Your task to perform on an android device: Open Wikipedia Image 0: 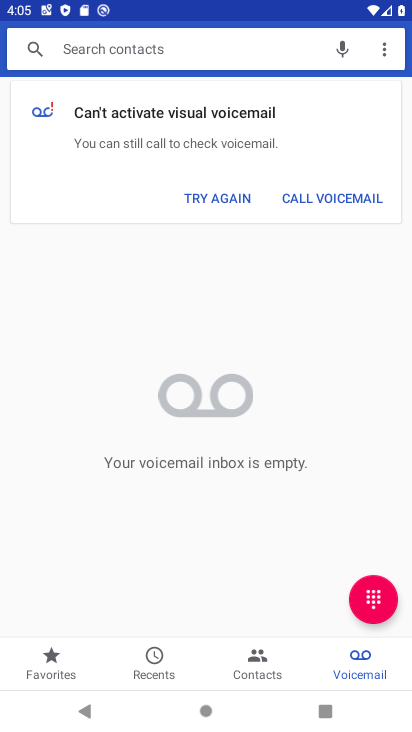
Step 0: click (206, 203)
Your task to perform on an android device: Open Wikipedia Image 1: 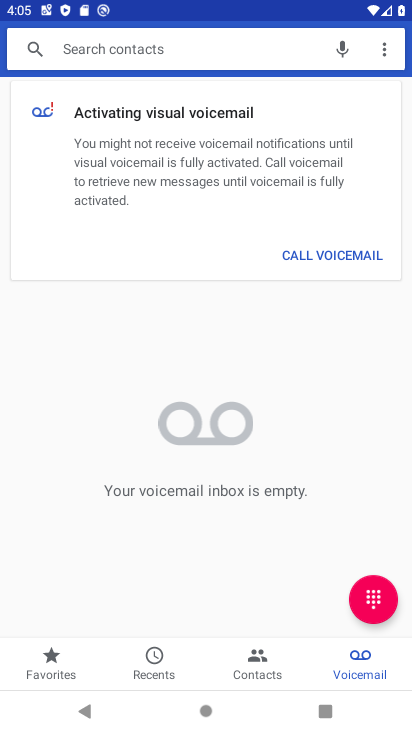
Step 1: click (212, 198)
Your task to perform on an android device: Open Wikipedia Image 2: 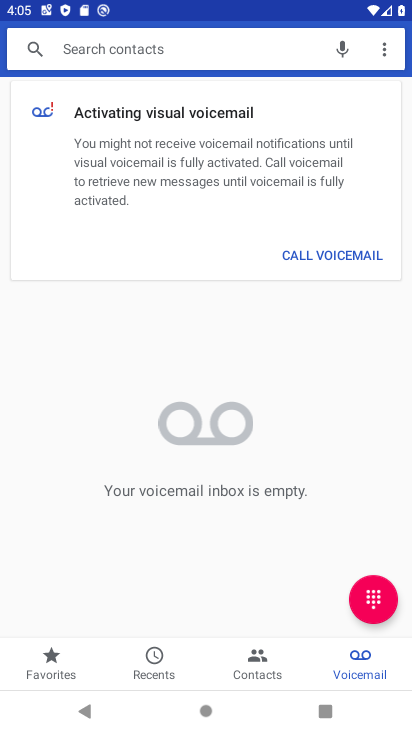
Step 2: press back button
Your task to perform on an android device: Open Wikipedia Image 3: 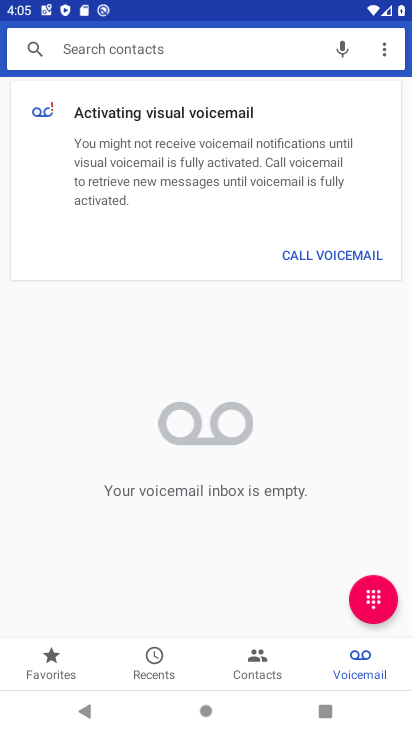
Step 3: press back button
Your task to perform on an android device: Open Wikipedia Image 4: 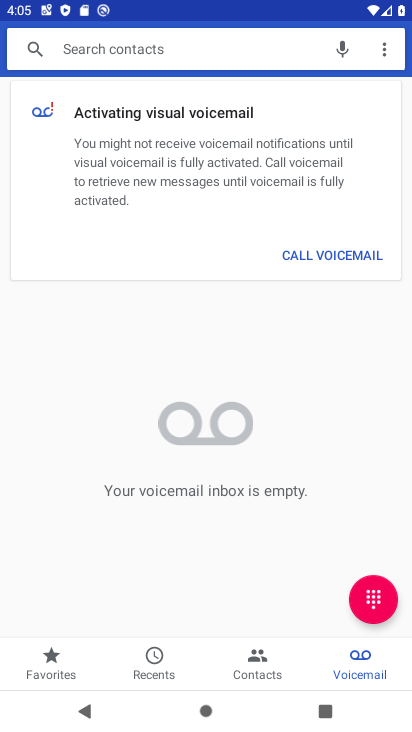
Step 4: press home button
Your task to perform on an android device: Open Wikipedia Image 5: 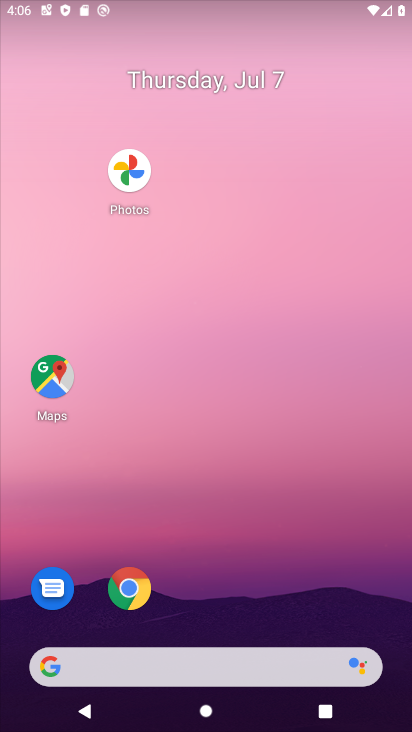
Step 5: press back button
Your task to perform on an android device: Open Wikipedia Image 6: 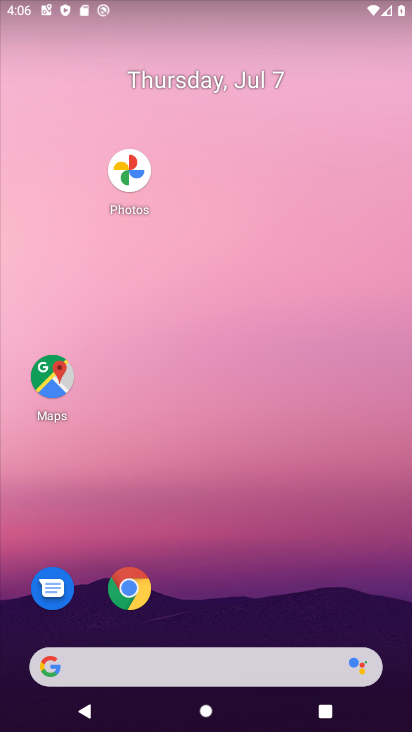
Step 6: press back button
Your task to perform on an android device: Open Wikipedia Image 7: 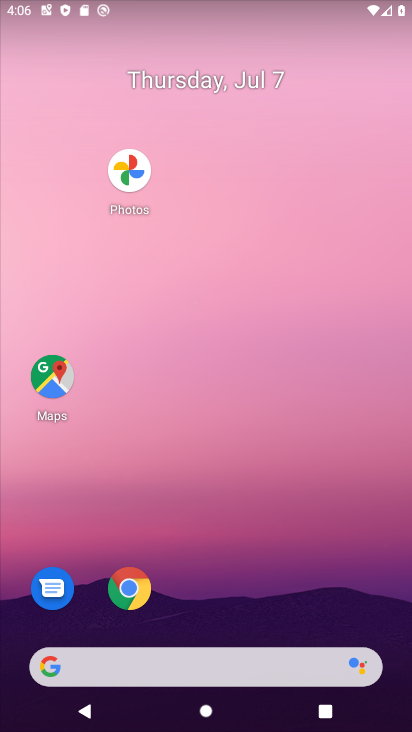
Step 7: press back button
Your task to perform on an android device: Open Wikipedia Image 8: 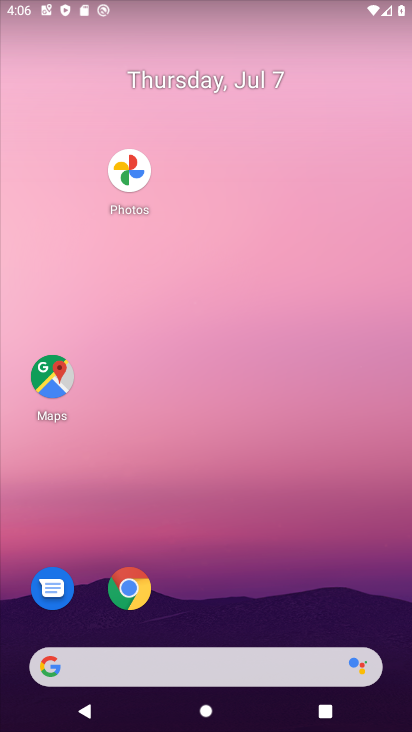
Step 8: click (214, 167)
Your task to perform on an android device: Open Wikipedia Image 9: 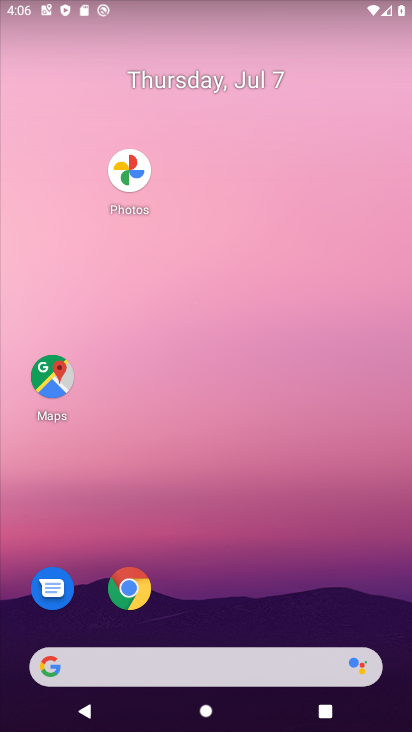
Step 9: drag from (240, 690) to (142, 279)
Your task to perform on an android device: Open Wikipedia Image 10: 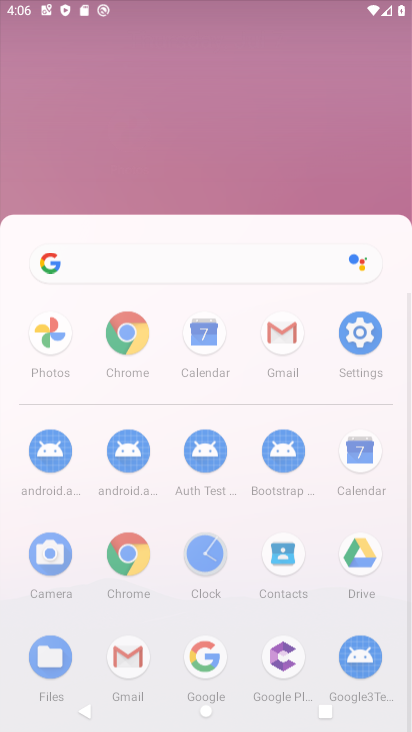
Step 10: drag from (245, 731) to (119, 220)
Your task to perform on an android device: Open Wikipedia Image 11: 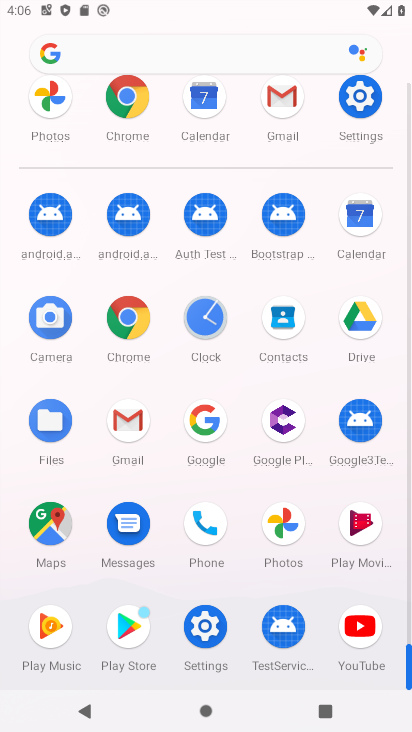
Step 11: drag from (20, 640) to (60, 667)
Your task to perform on an android device: Open Wikipedia Image 12: 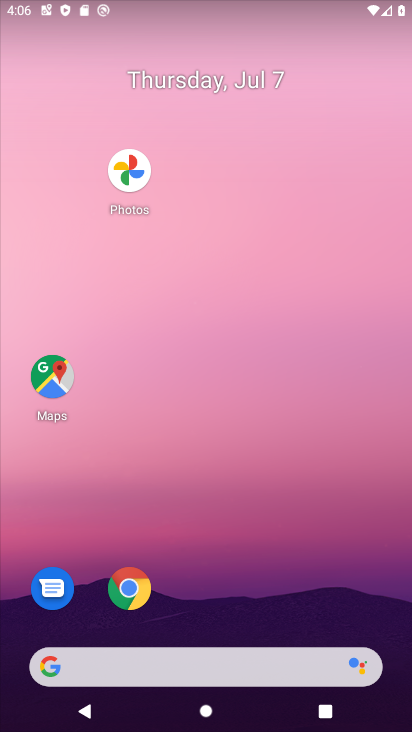
Step 12: click (126, 101)
Your task to perform on an android device: Open Wikipedia Image 13: 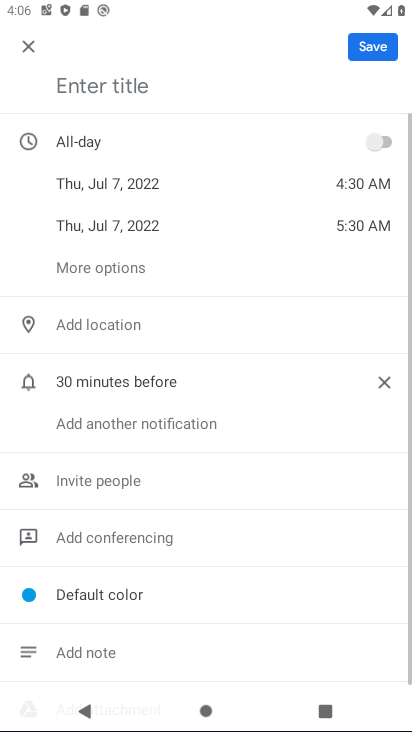
Step 13: drag from (327, 629) to (250, 155)
Your task to perform on an android device: Open Wikipedia Image 14: 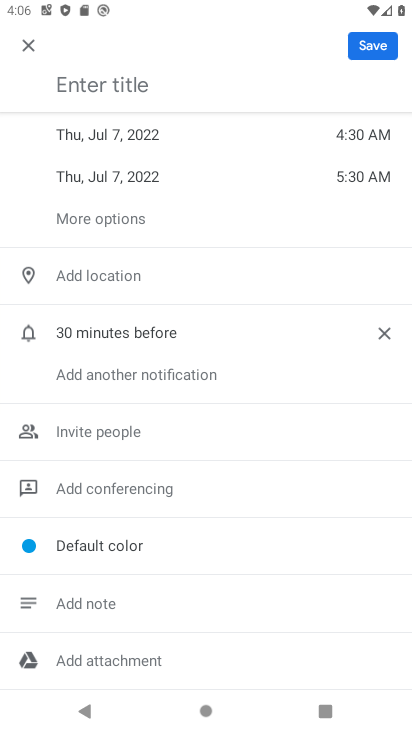
Step 14: click (28, 45)
Your task to perform on an android device: Open Wikipedia Image 15: 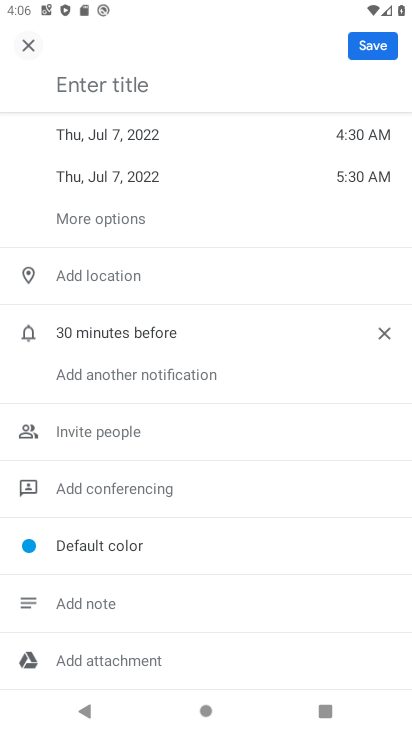
Step 15: click (44, 37)
Your task to perform on an android device: Open Wikipedia Image 16: 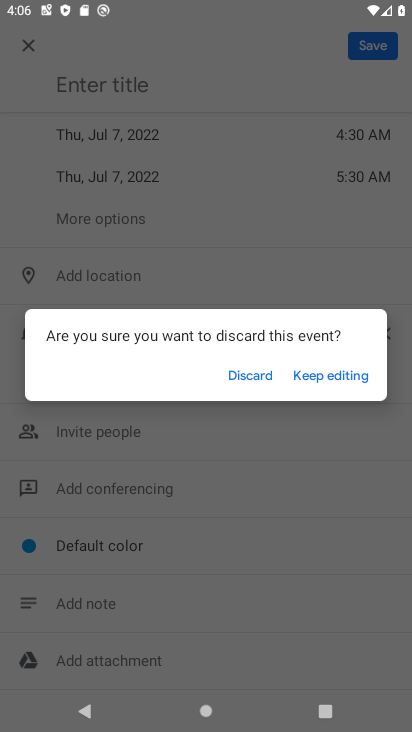
Step 16: click (43, 37)
Your task to perform on an android device: Open Wikipedia Image 17: 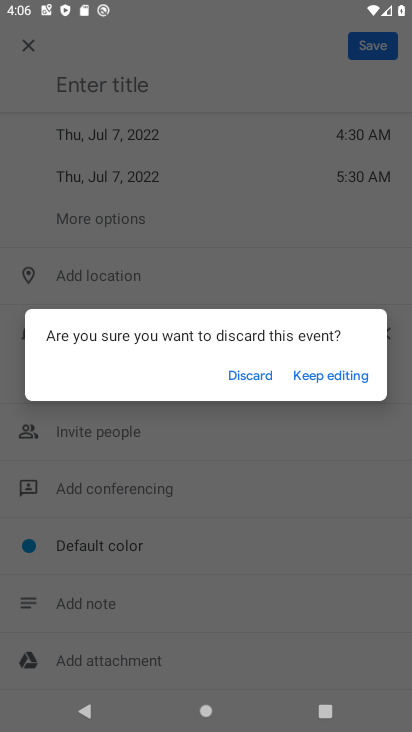
Step 17: click (251, 373)
Your task to perform on an android device: Open Wikipedia Image 18: 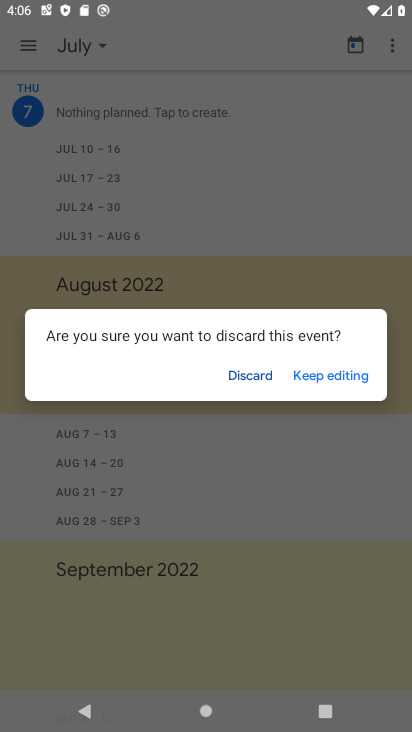
Step 18: click (254, 368)
Your task to perform on an android device: Open Wikipedia Image 19: 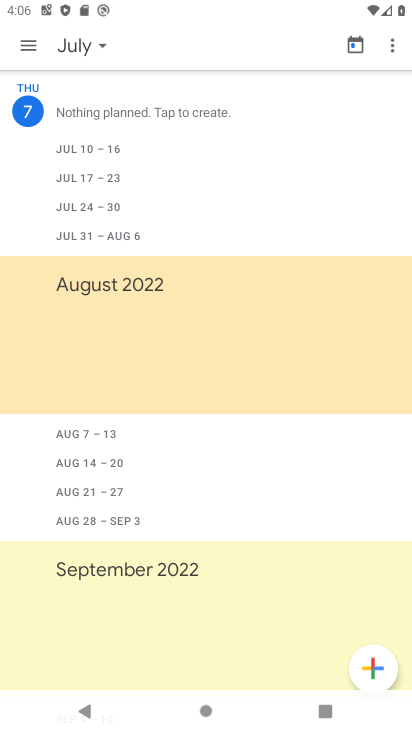
Step 19: click (255, 366)
Your task to perform on an android device: Open Wikipedia Image 20: 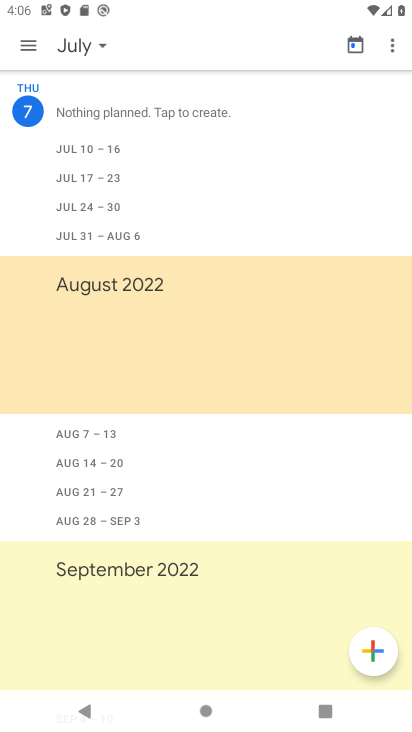
Step 20: press back button
Your task to perform on an android device: Open Wikipedia Image 21: 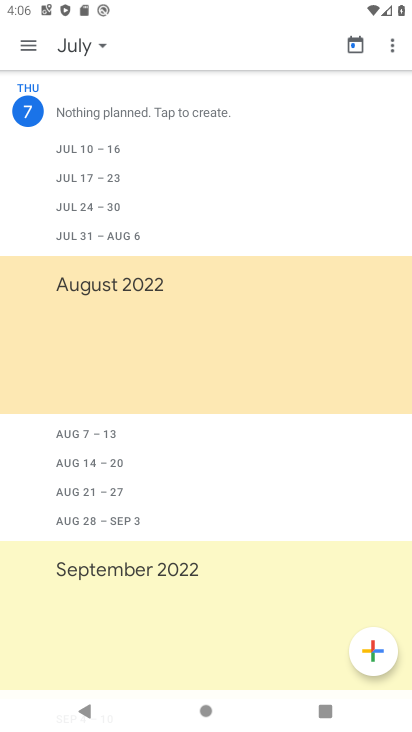
Step 21: press back button
Your task to perform on an android device: Open Wikipedia Image 22: 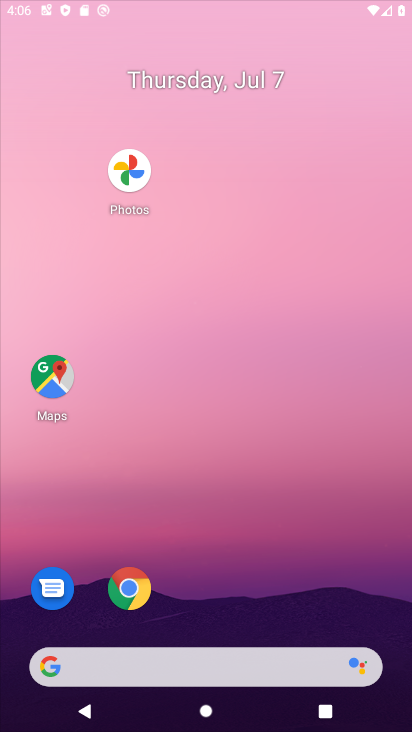
Step 22: press back button
Your task to perform on an android device: Open Wikipedia Image 23: 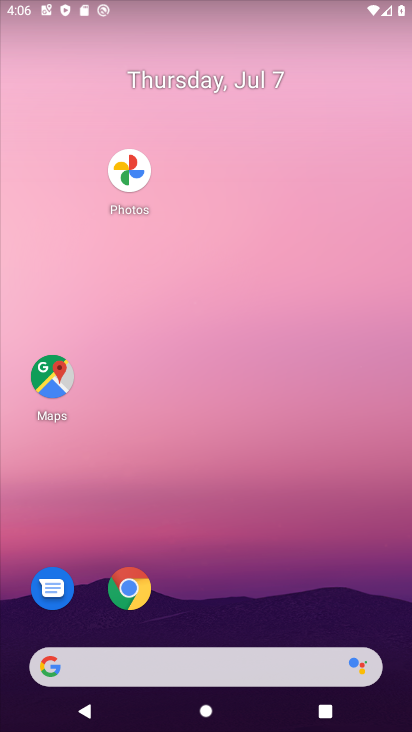
Step 23: press back button
Your task to perform on an android device: Open Wikipedia Image 24: 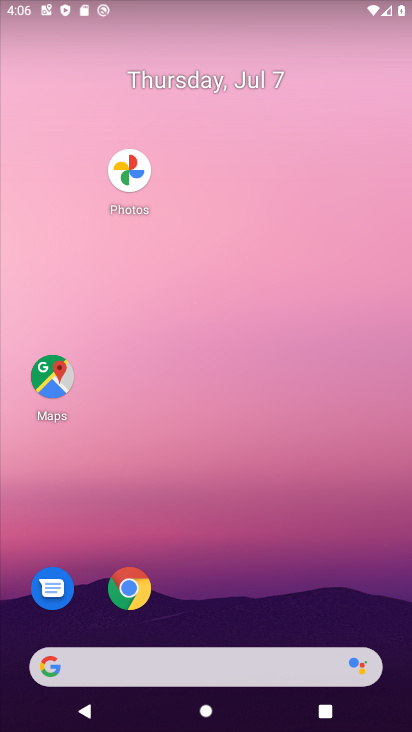
Step 24: drag from (185, 525) to (98, 70)
Your task to perform on an android device: Open Wikipedia Image 25: 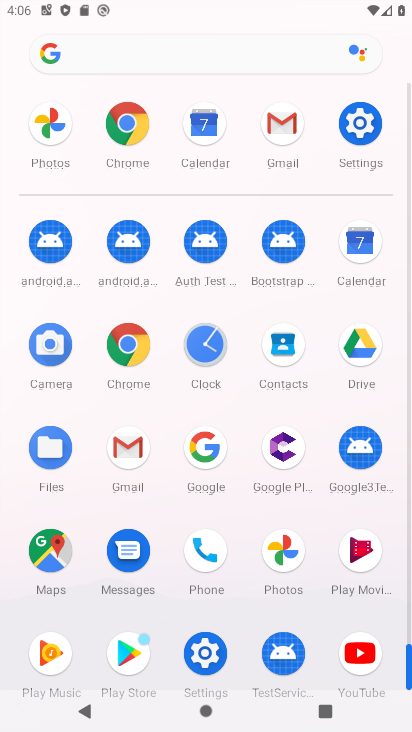
Step 25: click (139, 117)
Your task to perform on an android device: Open Wikipedia Image 26: 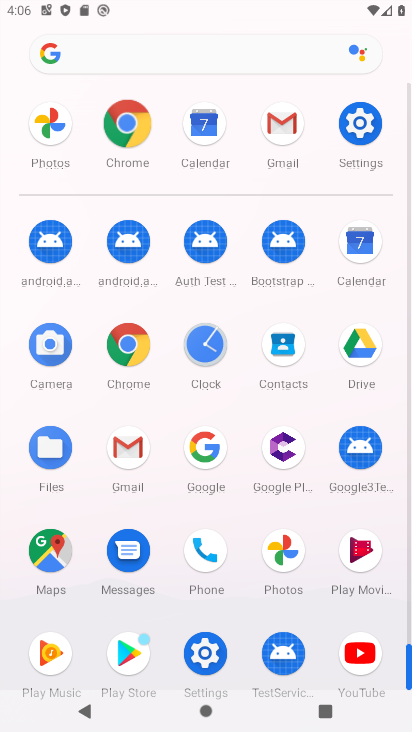
Step 26: click (134, 119)
Your task to perform on an android device: Open Wikipedia Image 27: 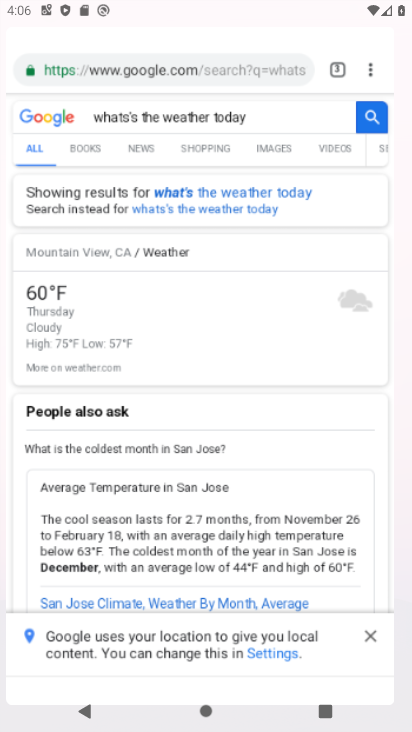
Step 27: click (129, 123)
Your task to perform on an android device: Open Wikipedia Image 28: 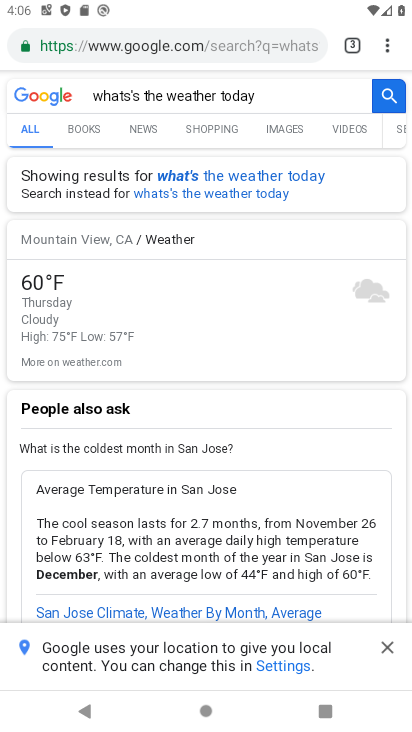
Step 28: drag from (381, 42) to (242, 142)
Your task to perform on an android device: Open Wikipedia Image 29: 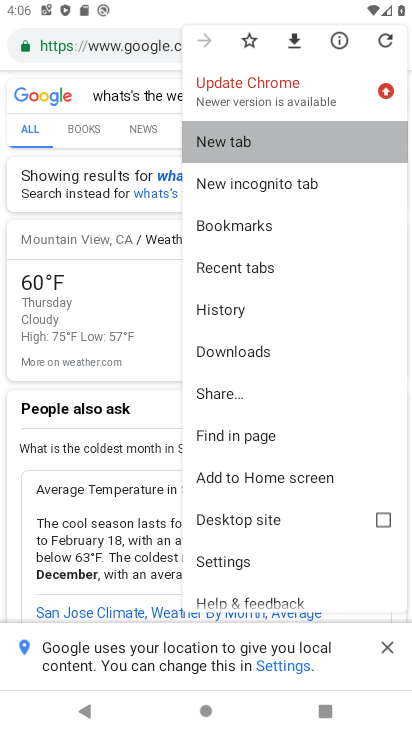
Step 29: click (242, 142)
Your task to perform on an android device: Open Wikipedia Image 30: 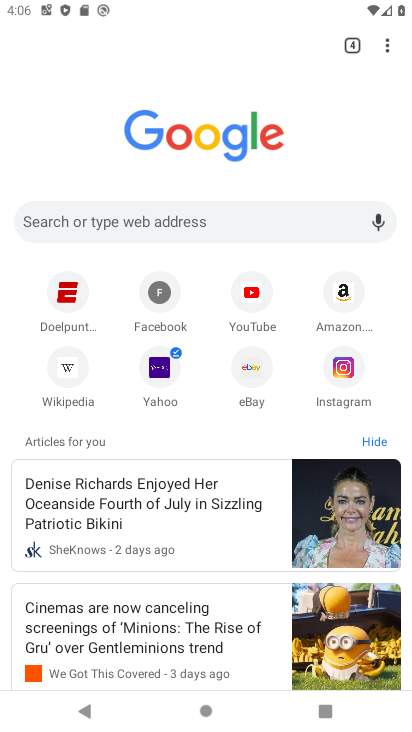
Step 30: click (60, 357)
Your task to perform on an android device: Open Wikipedia Image 31: 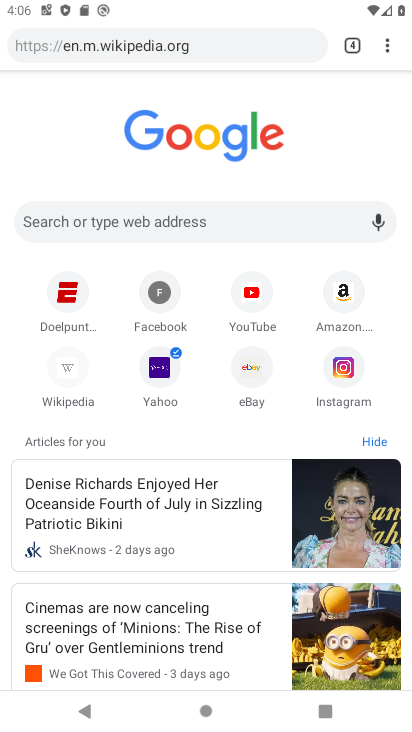
Step 31: click (65, 356)
Your task to perform on an android device: Open Wikipedia Image 32: 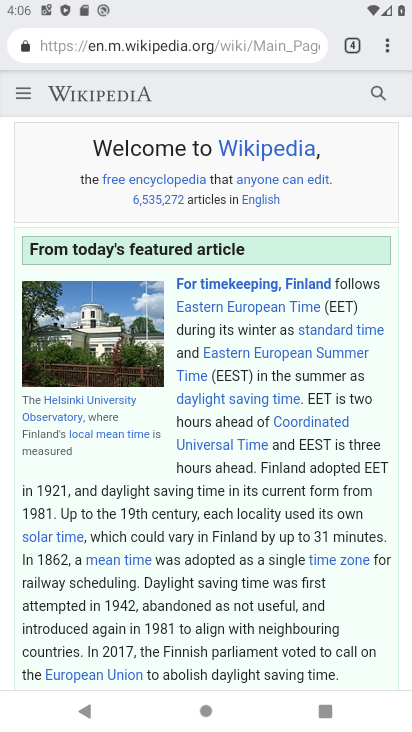
Step 32: task complete